Your task to perform on an android device: Open settings on Google Maps Image 0: 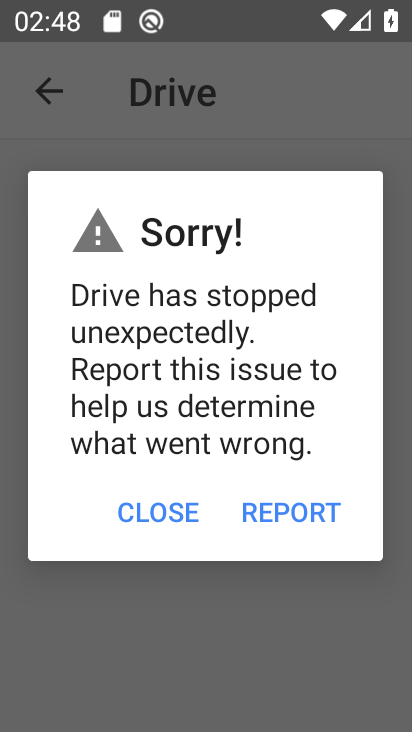
Step 0: press home button
Your task to perform on an android device: Open settings on Google Maps Image 1: 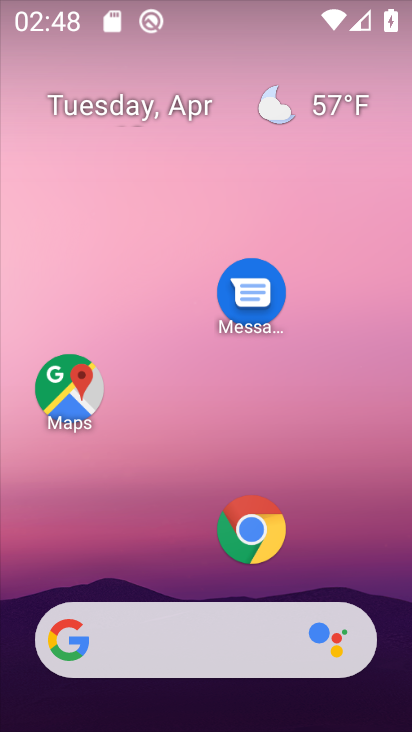
Step 1: drag from (149, 551) to (129, 187)
Your task to perform on an android device: Open settings on Google Maps Image 2: 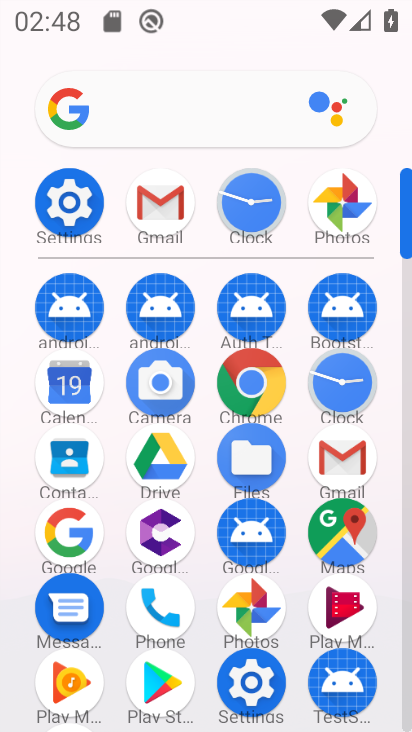
Step 2: click (341, 533)
Your task to perform on an android device: Open settings on Google Maps Image 3: 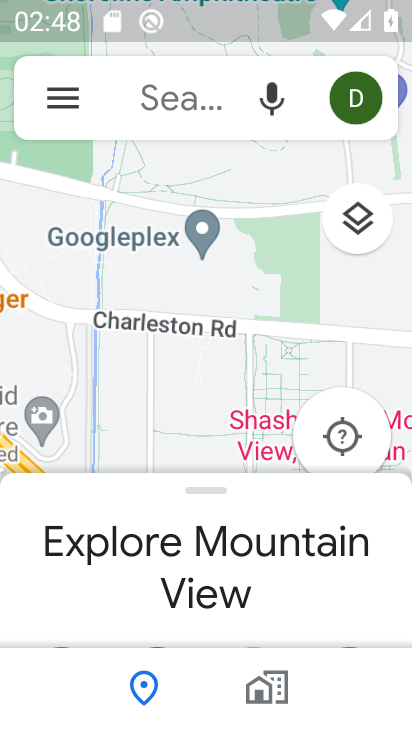
Step 3: click (61, 95)
Your task to perform on an android device: Open settings on Google Maps Image 4: 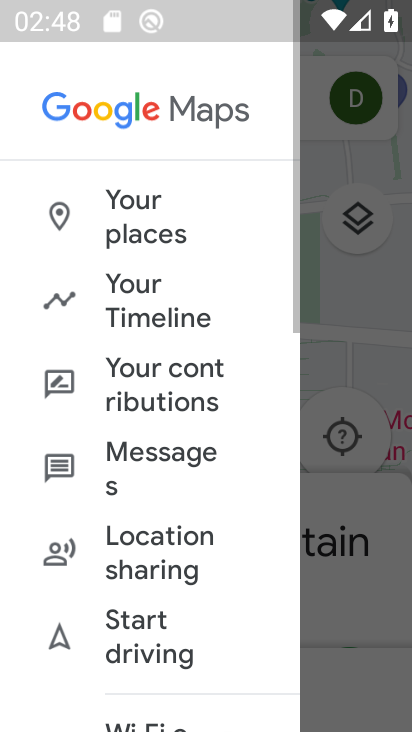
Step 4: drag from (193, 598) to (150, 29)
Your task to perform on an android device: Open settings on Google Maps Image 5: 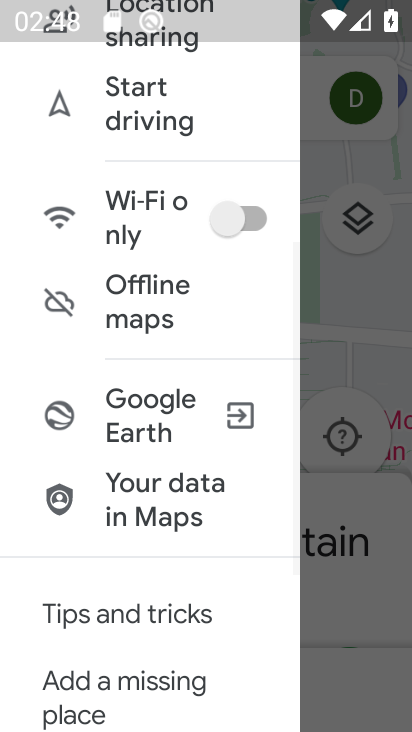
Step 5: drag from (175, 629) to (158, 20)
Your task to perform on an android device: Open settings on Google Maps Image 6: 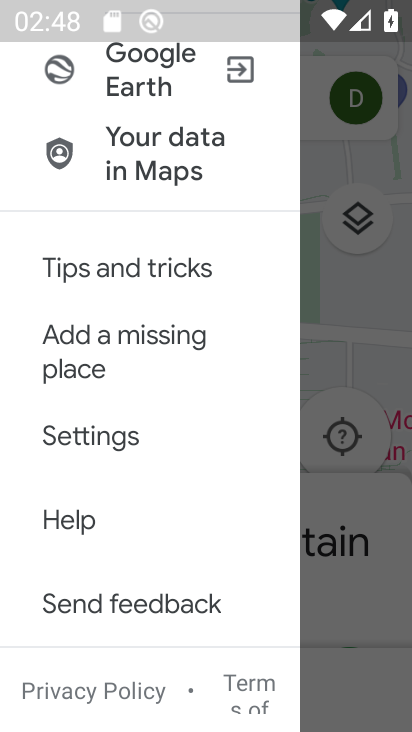
Step 6: click (63, 440)
Your task to perform on an android device: Open settings on Google Maps Image 7: 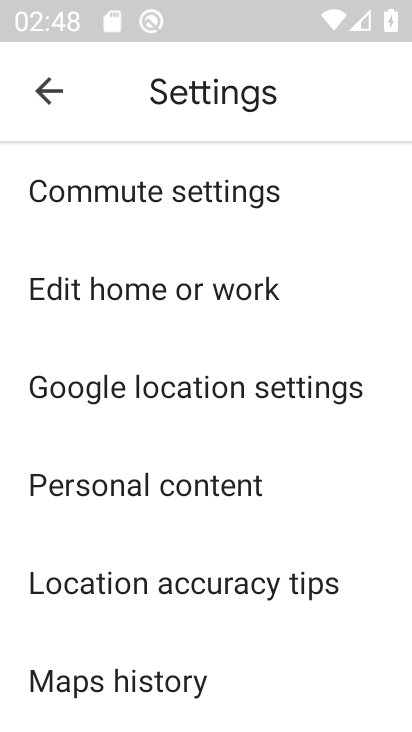
Step 7: task complete